Your task to perform on an android device: When is my next meeting? Image 0: 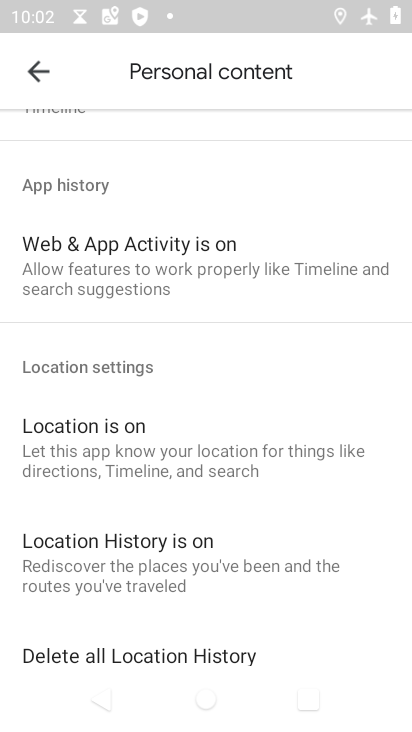
Step 0: press home button
Your task to perform on an android device: When is my next meeting? Image 1: 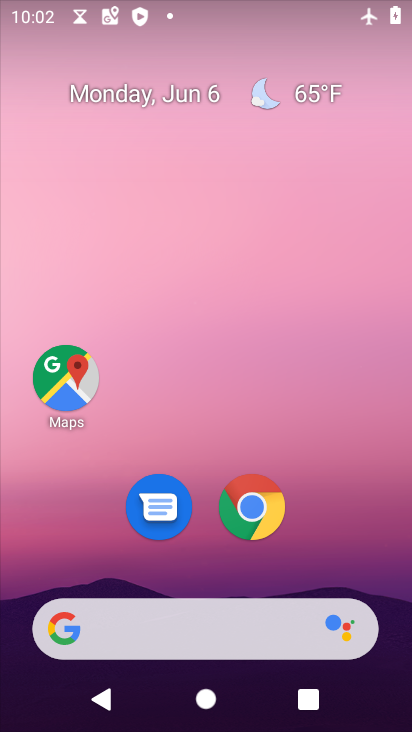
Step 1: drag from (343, 520) to (333, 310)
Your task to perform on an android device: When is my next meeting? Image 2: 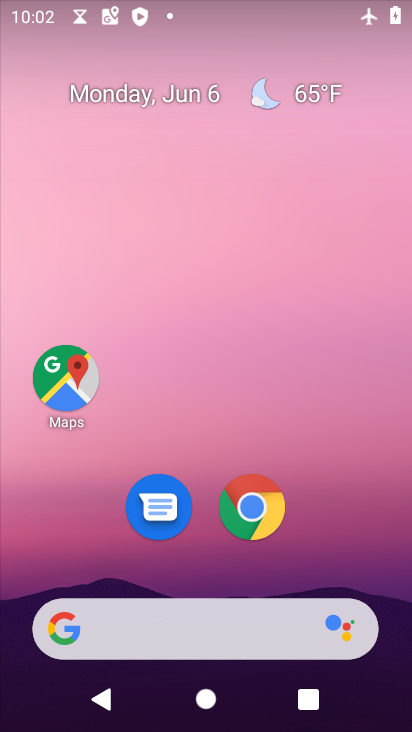
Step 2: drag from (268, 559) to (287, 114)
Your task to perform on an android device: When is my next meeting? Image 3: 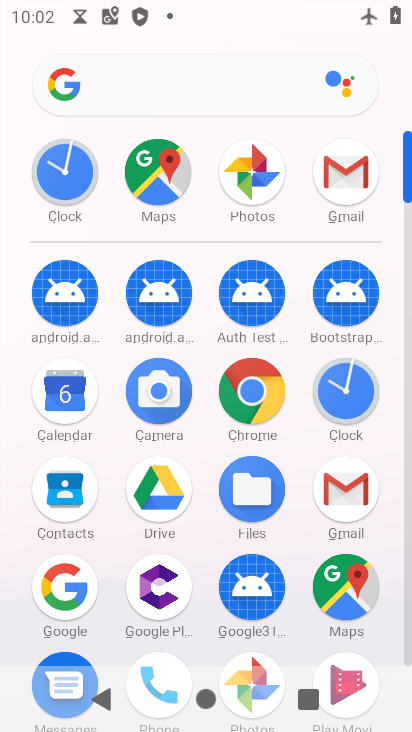
Step 3: click (59, 382)
Your task to perform on an android device: When is my next meeting? Image 4: 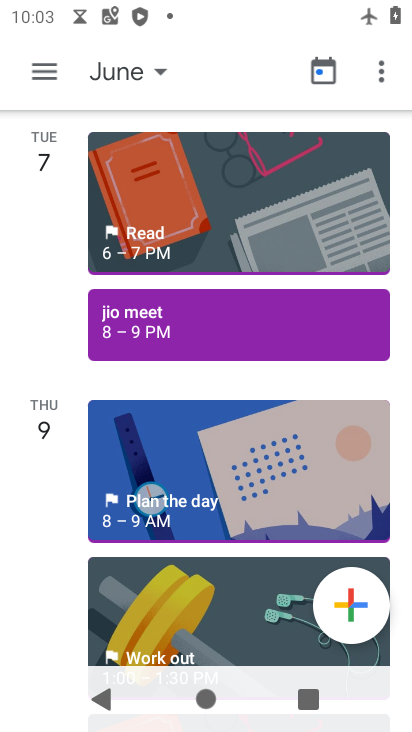
Step 4: task complete